Your task to perform on an android device: What's on my calendar tomorrow? Image 0: 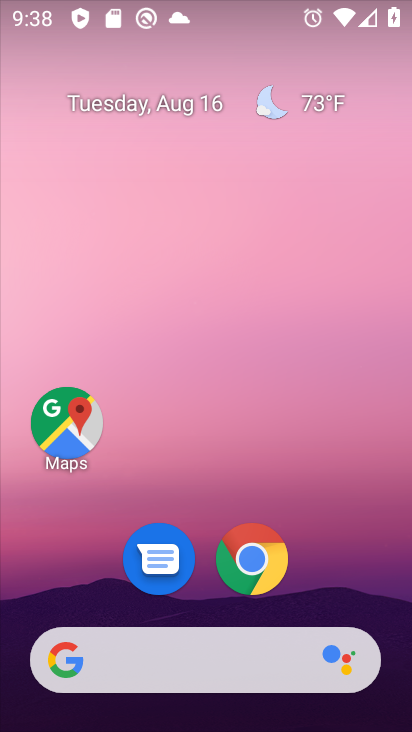
Step 0: drag from (191, 678) to (278, 107)
Your task to perform on an android device: What's on my calendar tomorrow? Image 1: 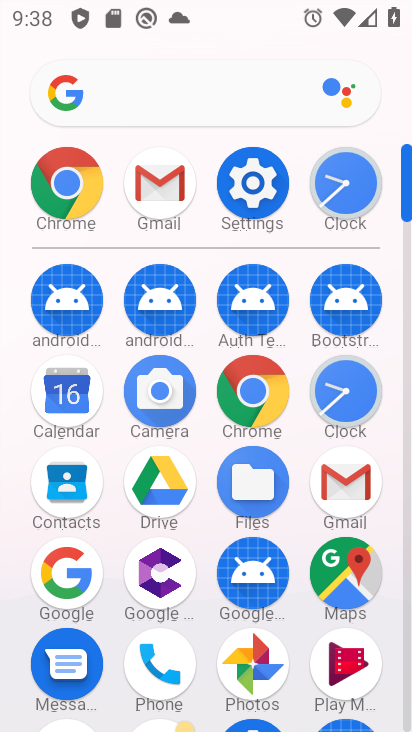
Step 1: click (65, 397)
Your task to perform on an android device: What's on my calendar tomorrow? Image 2: 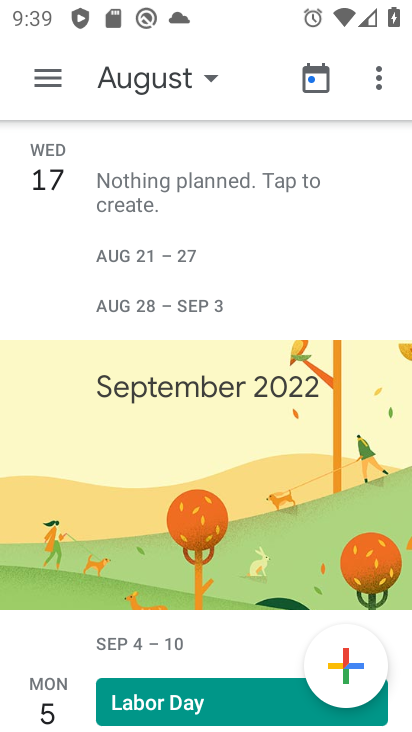
Step 2: click (210, 80)
Your task to perform on an android device: What's on my calendar tomorrow? Image 3: 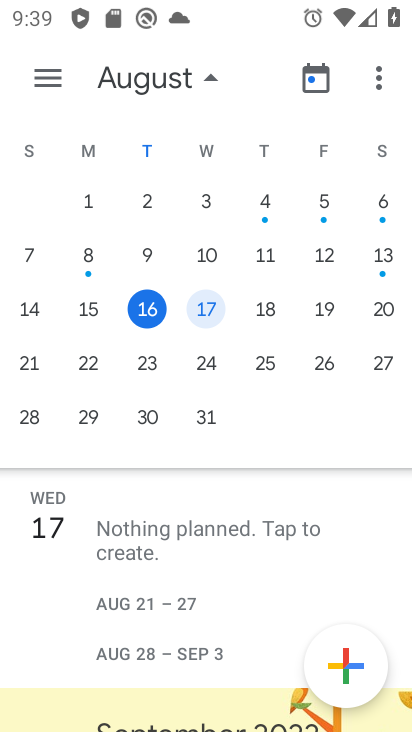
Step 3: click (212, 307)
Your task to perform on an android device: What's on my calendar tomorrow? Image 4: 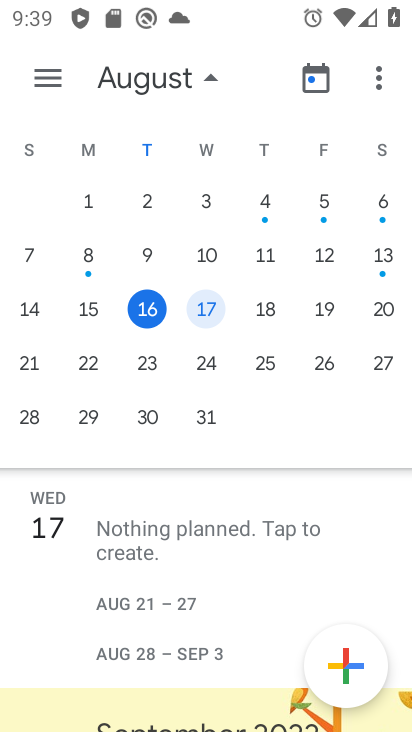
Step 4: click (60, 87)
Your task to perform on an android device: What's on my calendar tomorrow? Image 5: 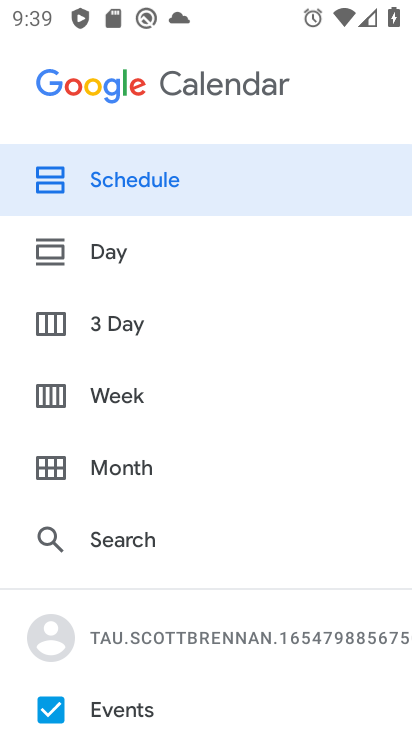
Step 5: click (96, 170)
Your task to perform on an android device: What's on my calendar tomorrow? Image 6: 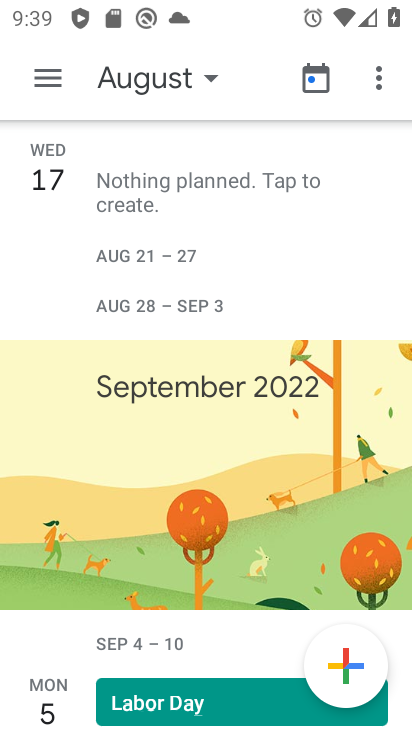
Step 6: task complete